Your task to perform on an android device: Go to battery settings Image 0: 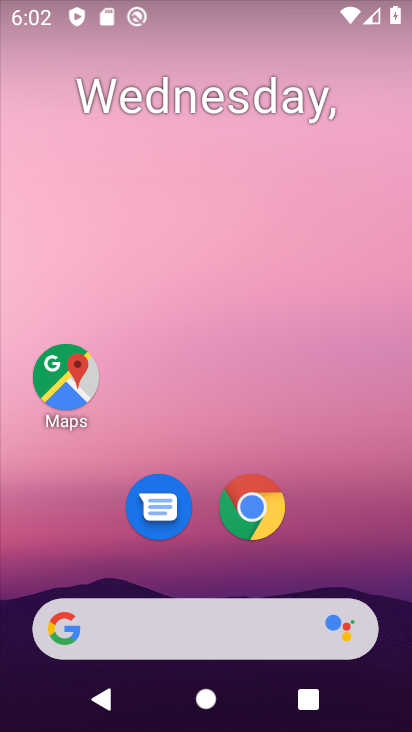
Step 0: drag from (208, 597) to (204, 48)
Your task to perform on an android device: Go to battery settings Image 1: 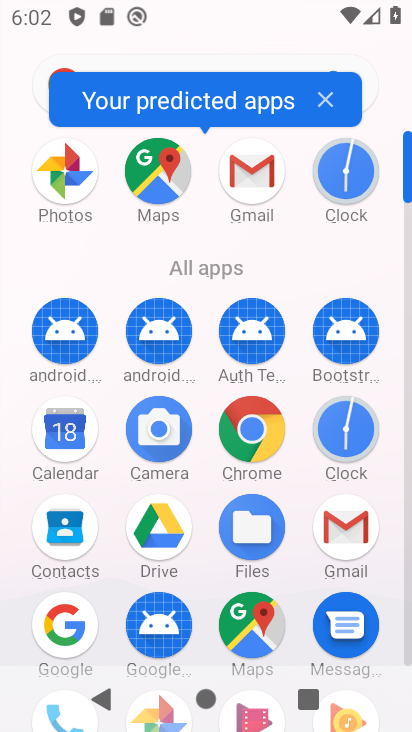
Step 1: drag from (301, 610) to (282, 166)
Your task to perform on an android device: Go to battery settings Image 2: 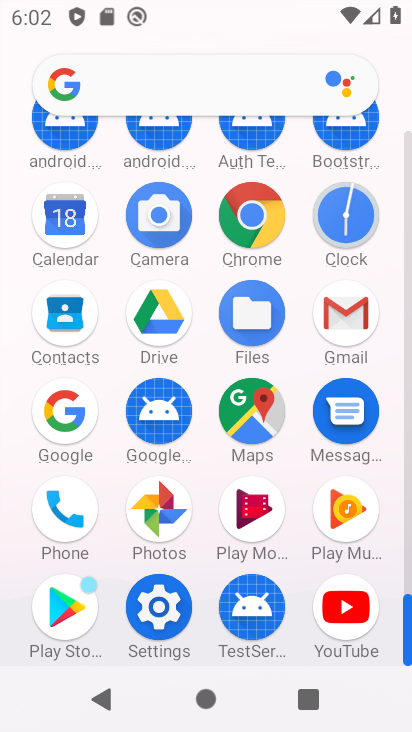
Step 2: click (168, 622)
Your task to perform on an android device: Go to battery settings Image 3: 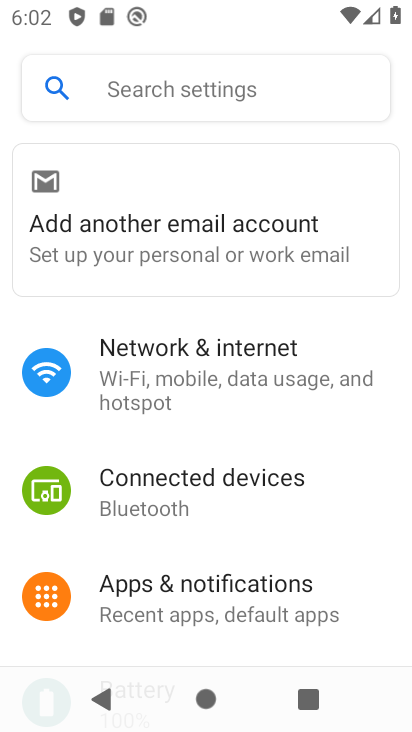
Step 3: drag from (296, 594) to (235, 164)
Your task to perform on an android device: Go to battery settings Image 4: 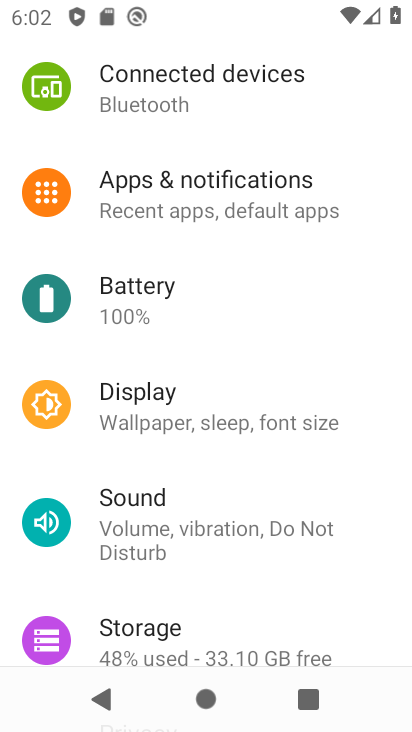
Step 4: click (170, 311)
Your task to perform on an android device: Go to battery settings Image 5: 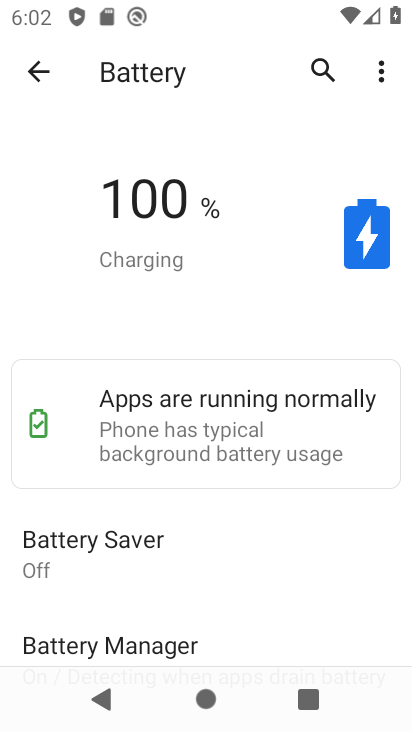
Step 5: task complete